Your task to perform on an android device: snooze an email in the gmail app Image 0: 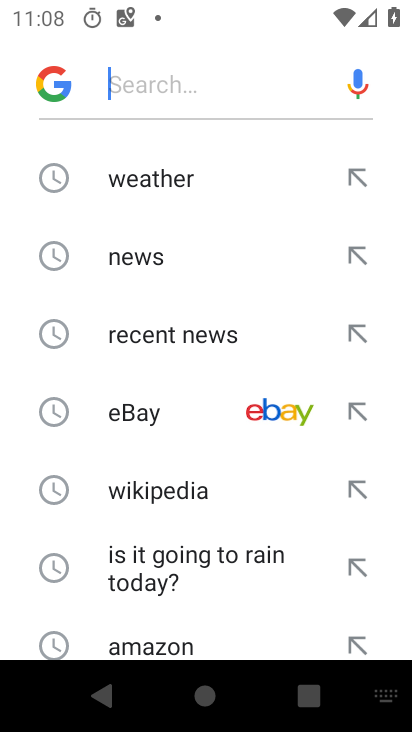
Step 0: press home button
Your task to perform on an android device: snooze an email in the gmail app Image 1: 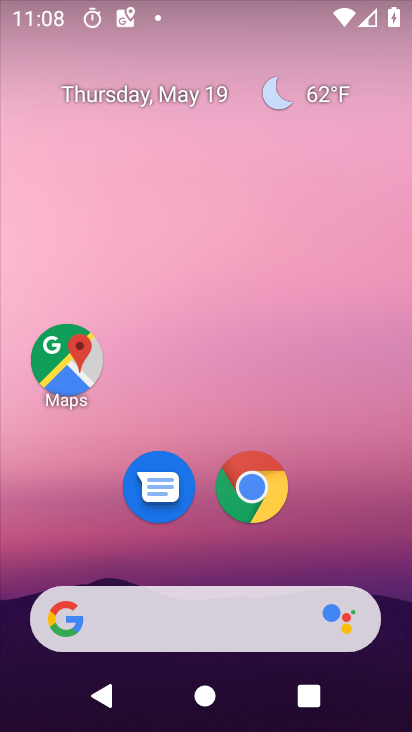
Step 1: drag from (322, 472) to (332, 312)
Your task to perform on an android device: snooze an email in the gmail app Image 2: 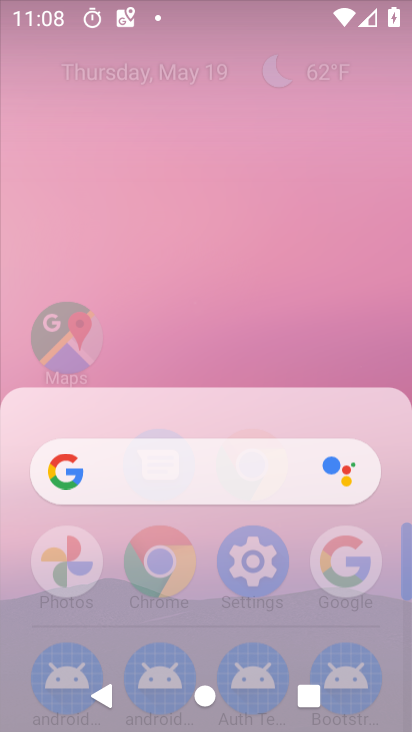
Step 2: click (259, 363)
Your task to perform on an android device: snooze an email in the gmail app Image 3: 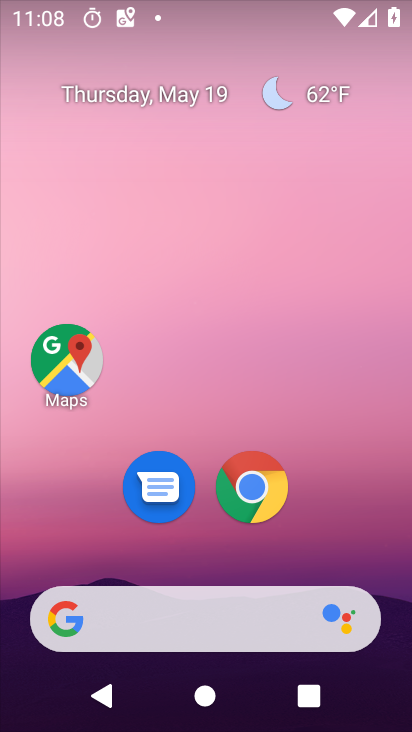
Step 3: drag from (315, 553) to (282, 204)
Your task to perform on an android device: snooze an email in the gmail app Image 4: 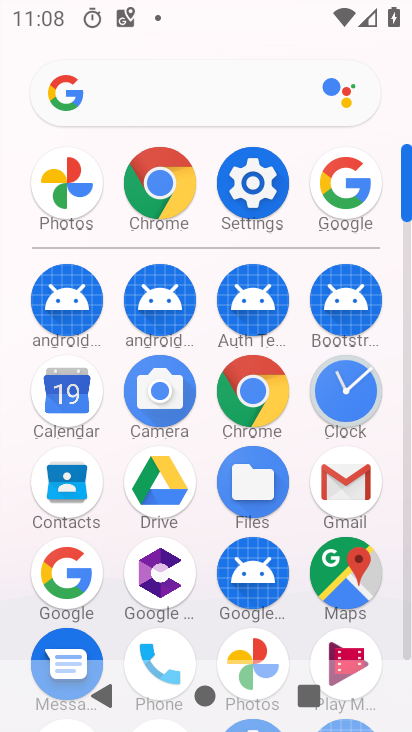
Step 4: click (347, 505)
Your task to perform on an android device: snooze an email in the gmail app Image 5: 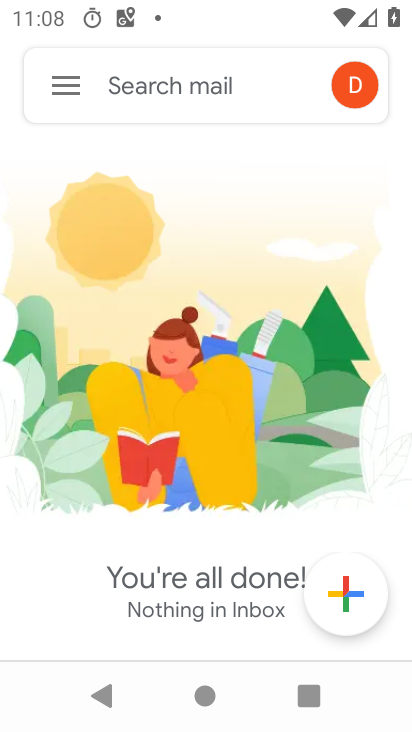
Step 5: click (66, 116)
Your task to perform on an android device: snooze an email in the gmail app Image 6: 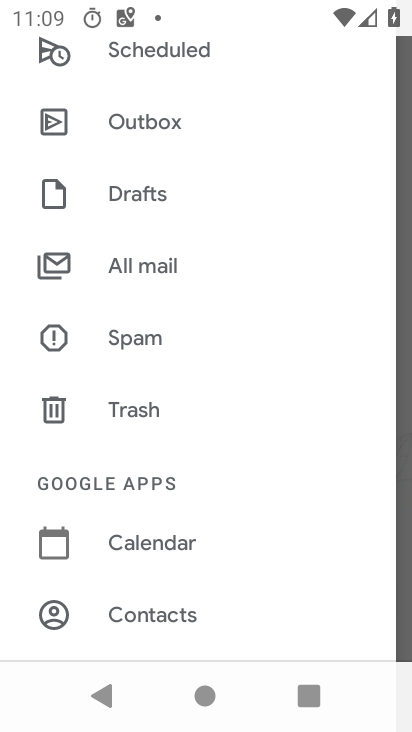
Step 6: drag from (142, 369) to (157, 81)
Your task to perform on an android device: snooze an email in the gmail app Image 7: 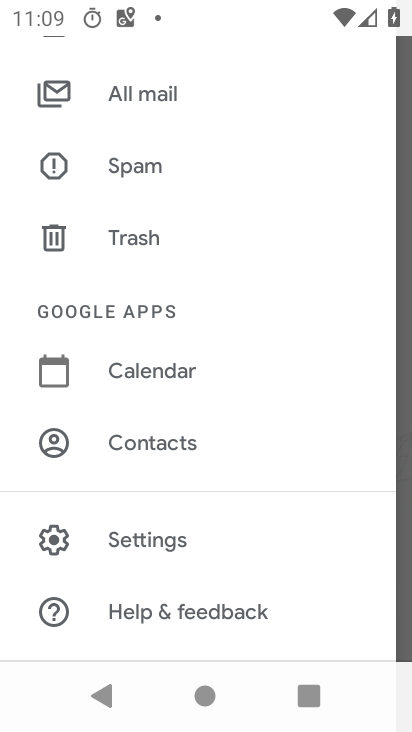
Step 7: drag from (219, 401) to (221, 602)
Your task to perform on an android device: snooze an email in the gmail app Image 8: 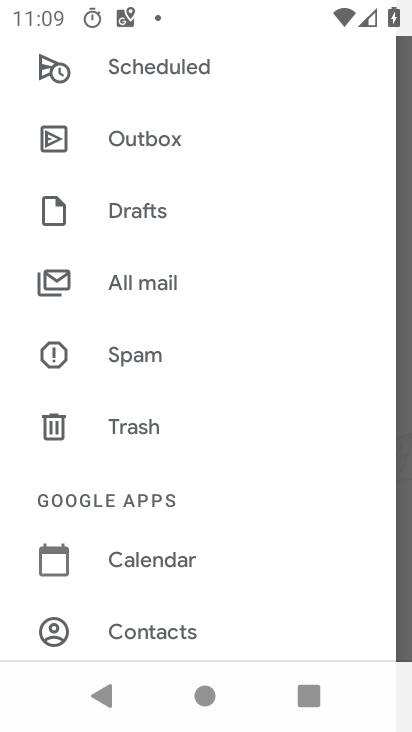
Step 8: drag from (214, 228) to (232, 544)
Your task to perform on an android device: snooze an email in the gmail app Image 9: 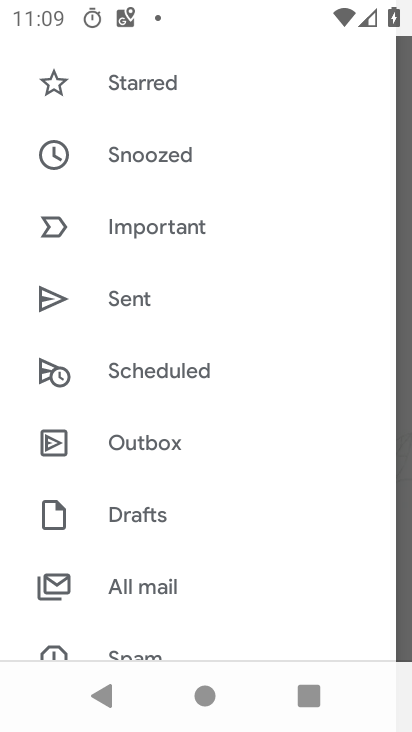
Step 9: drag from (210, 165) to (244, 480)
Your task to perform on an android device: snooze an email in the gmail app Image 10: 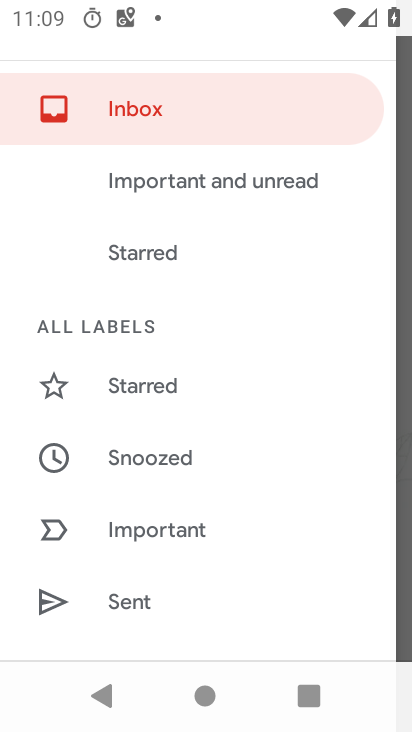
Step 10: drag from (293, 285) to (293, 503)
Your task to perform on an android device: snooze an email in the gmail app Image 11: 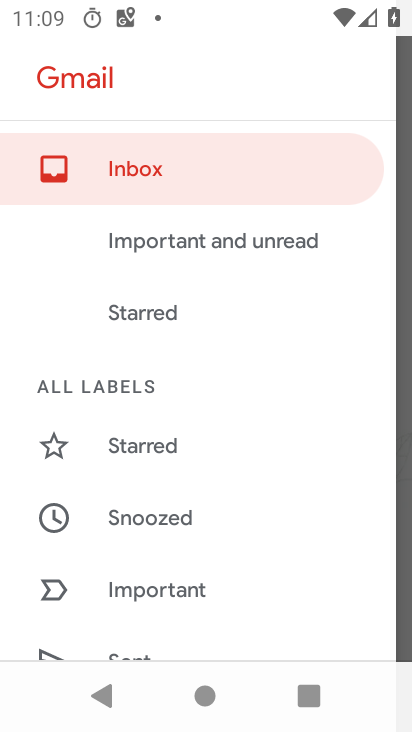
Step 11: click (185, 511)
Your task to perform on an android device: snooze an email in the gmail app Image 12: 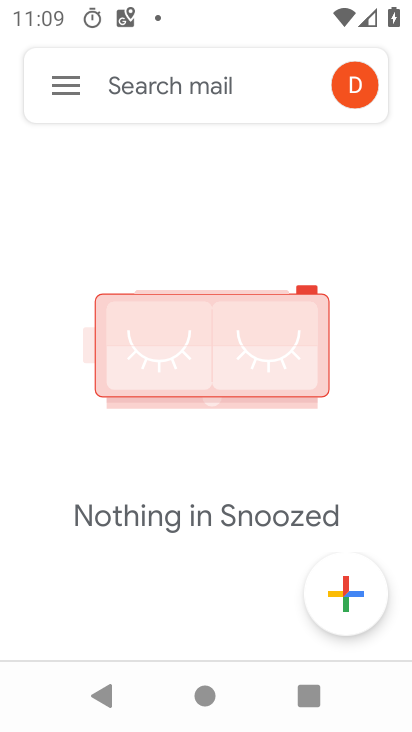
Step 12: task complete